Your task to perform on an android device: star an email in the gmail app Image 0: 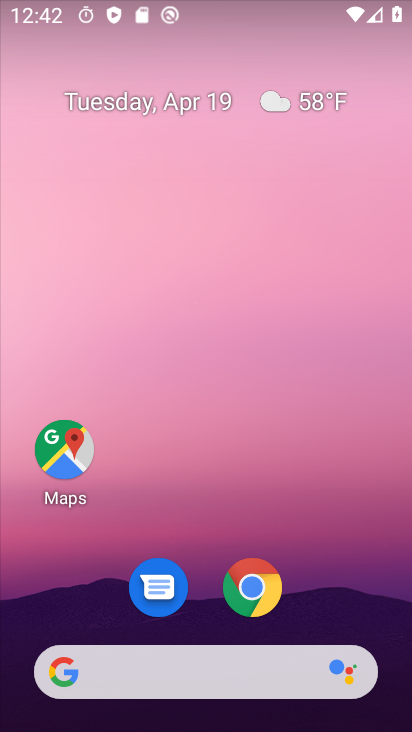
Step 0: drag from (354, 578) to (355, 137)
Your task to perform on an android device: star an email in the gmail app Image 1: 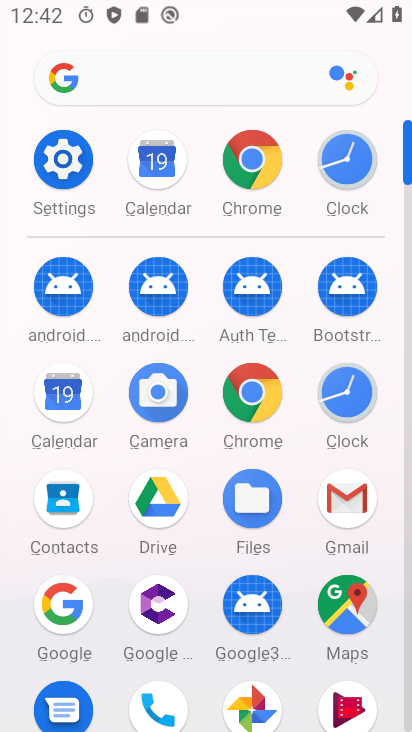
Step 1: click (327, 495)
Your task to perform on an android device: star an email in the gmail app Image 2: 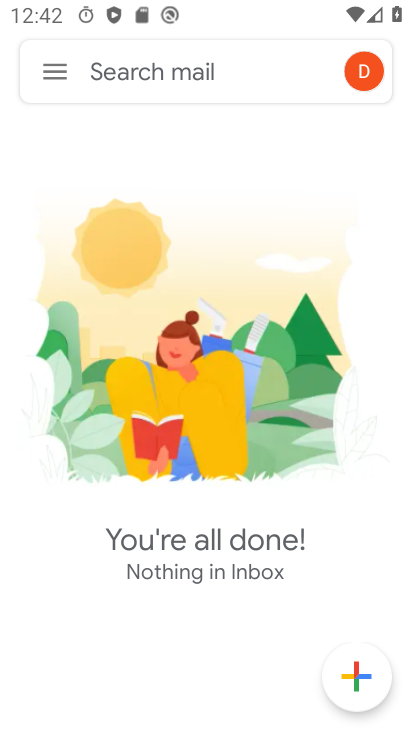
Step 2: click (62, 76)
Your task to perform on an android device: star an email in the gmail app Image 3: 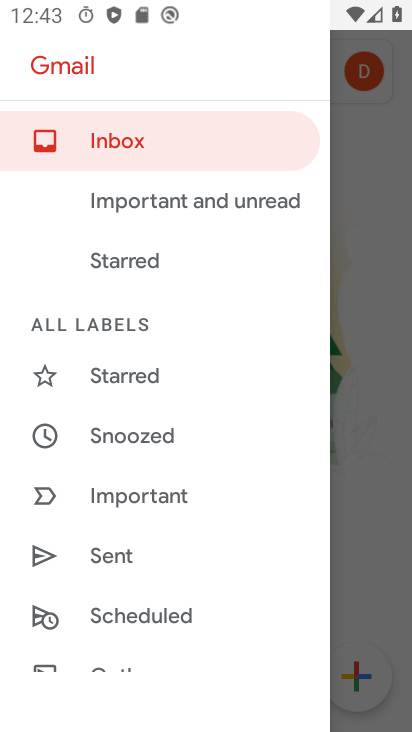
Step 3: drag from (192, 639) to (226, 343)
Your task to perform on an android device: star an email in the gmail app Image 4: 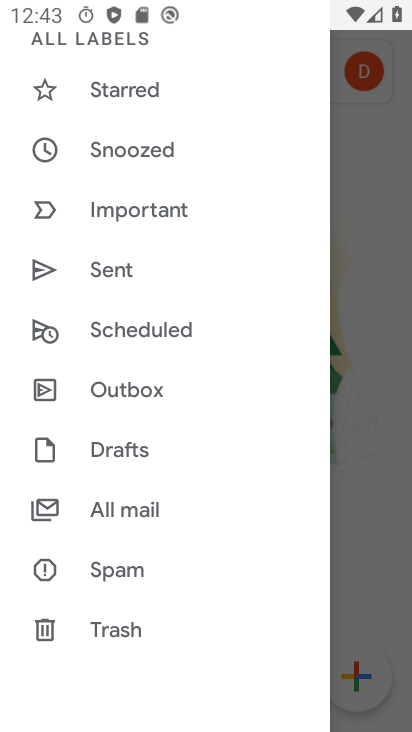
Step 4: drag from (205, 588) to (206, 328)
Your task to perform on an android device: star an email in the gmail app Image 5: 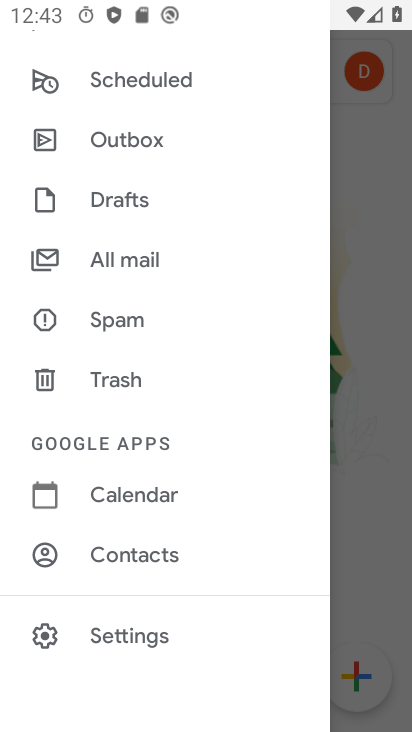
Step 5: click (127, 256)
Your task to perform on an android device: star an email in the gmail app Image 6: 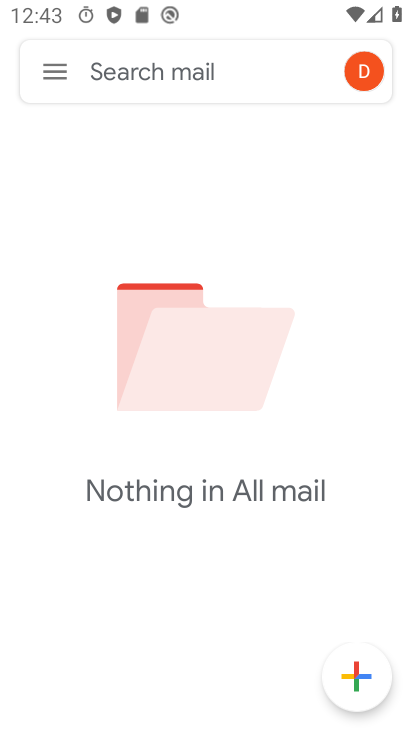
Step 6: click (57, 64)
Your task to perform on an android device: star an email in the gmail app Image 7: 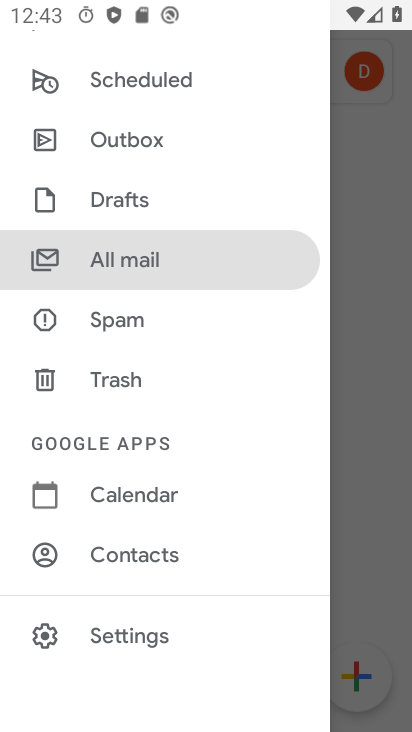
Step 7: click (141, 327)
Your task to perform on an android device: star an email in the gmail app Image 8: 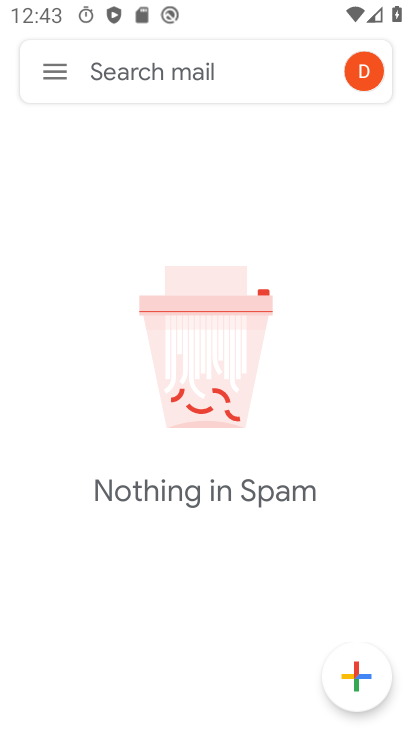
Step 8: click (49, 67)
Your task to perform on an android device: star an email in the gmail app Image 9: 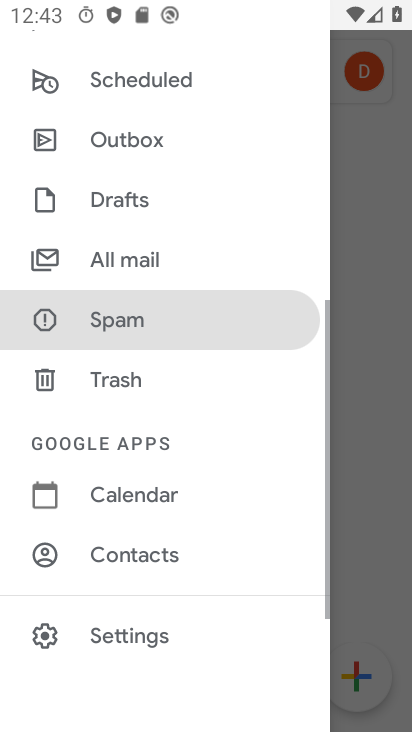
Step 9: click (128, 245)
Your task to perform on an android device: star an email in the gmail app Image 10: 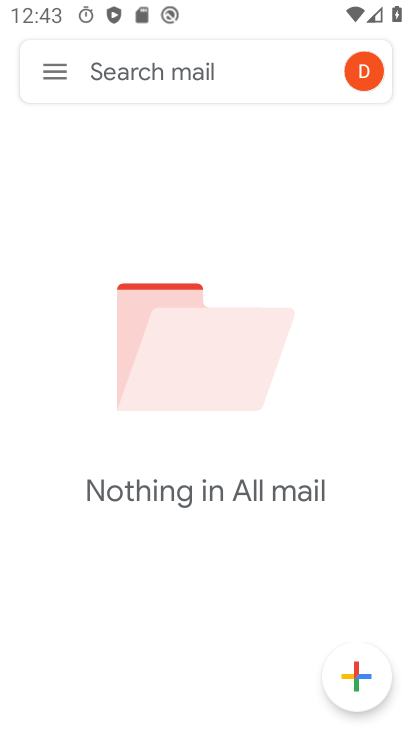
Step 10: task complete